Your task to perform on an android device: Open Youtube and go to the subscriptions tab Image 0: 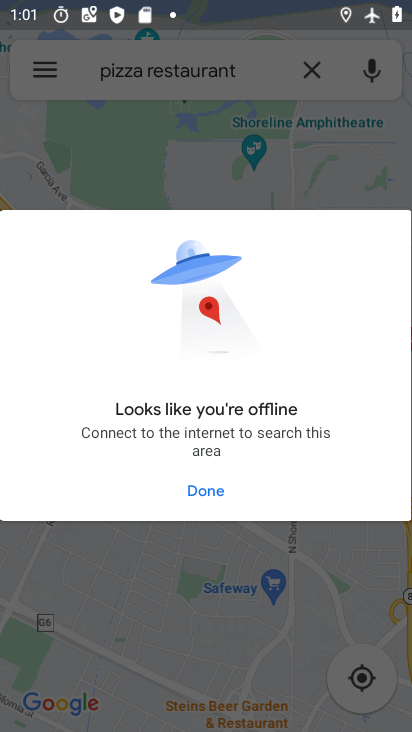
Step 0: press home button
Your task to perform on an android device: Open Youtube and go to the subscriptions tab Image 1: 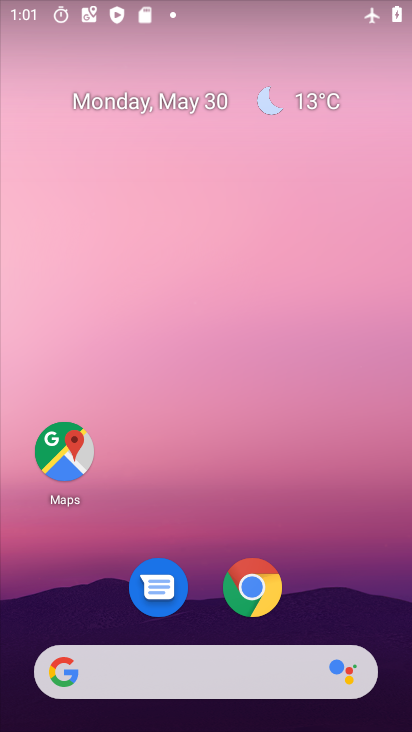
Step 1: drag from (360, 501) to (315, 150)
Your task to perform on an android device: Open Youtube and go to the subscriptions tab Image 2: 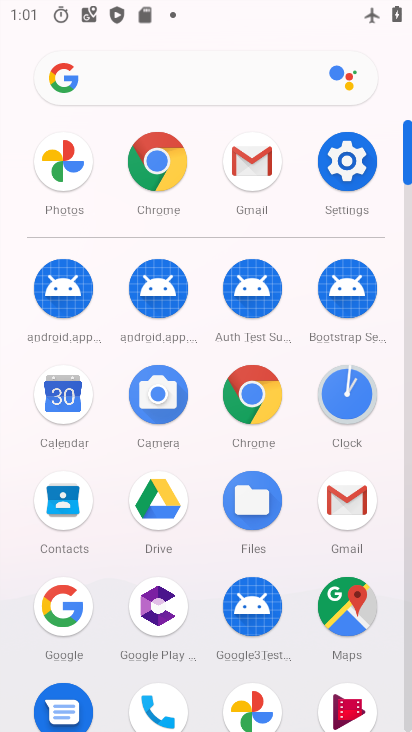
Step 2: drag from (291, 557) to (291, 238)
Your task to perform on an android device: Open Youtube and go to the subscriptions tab Image 3: 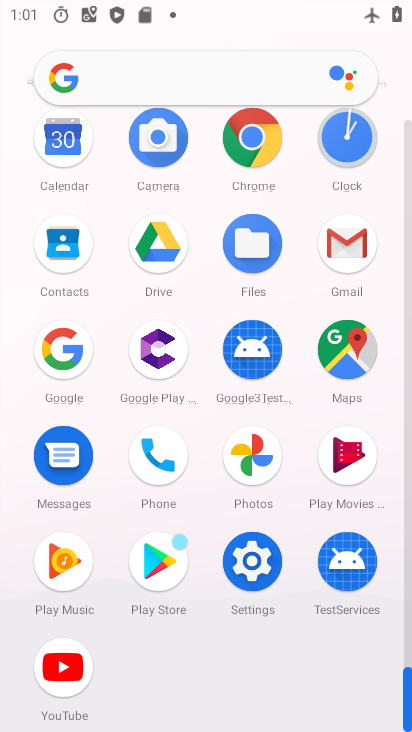
Step 3: click (59, 670)
Your task to perform on an android device: Open Youtube and go to the subscriptions tab Image 4: 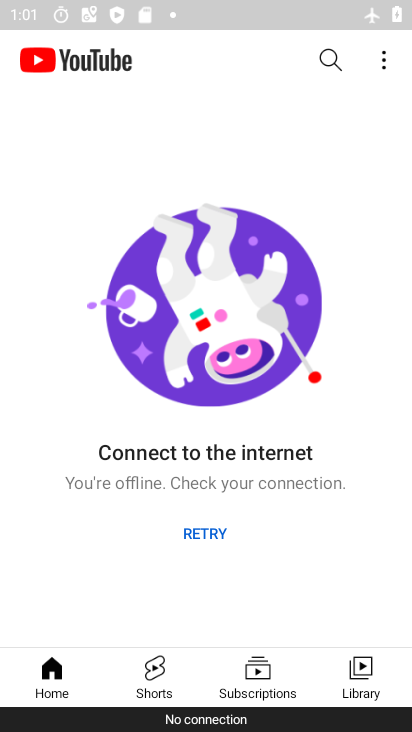
Step 4: click (273, 673)
Your task to perform on an android device: Open Youtube and go to the subscriptions tab Image 5: 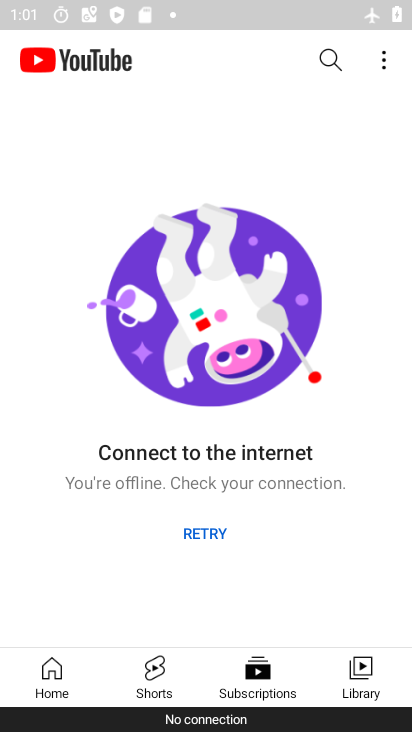
Step 5: task complete